Your task to perform on an android device: What's the weather going to be this weekend? Image 0: 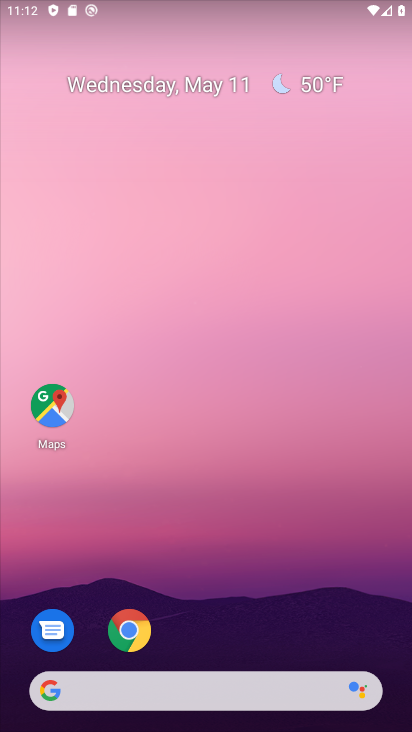
Step 0: click (125, 631)
Your task to perform on an android device: What's the weather going to be this weekend? Image 1: 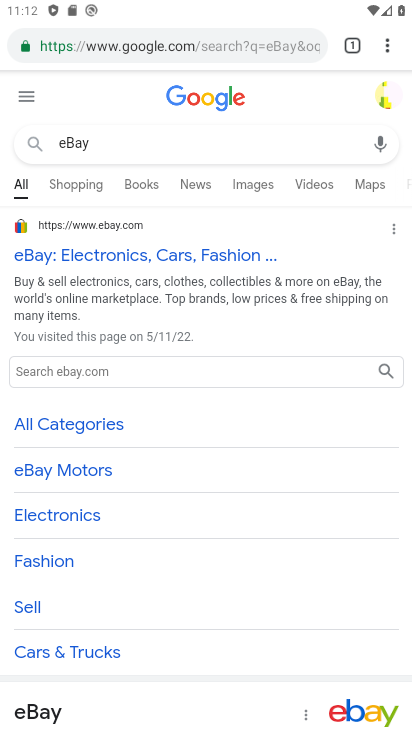
Step 1: click (163, 42)
Your task to perform on an android device: What's the weather going to be this weekend? Image 2: 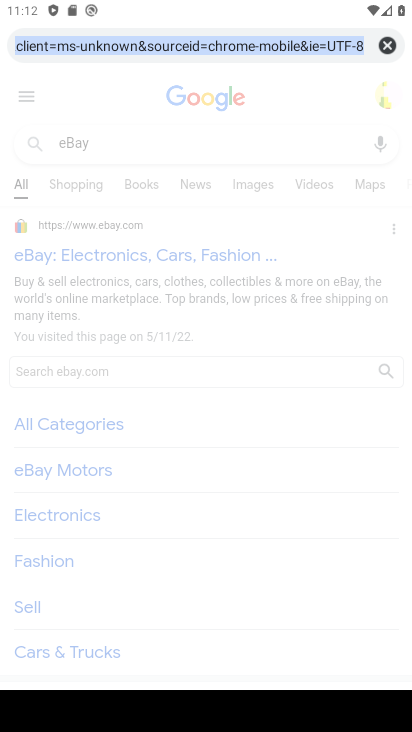
Step 2: type "What's the weather going to be this weekend?"
Your task to perform on an android device: What's the weather going to be this weekend? Image 3: 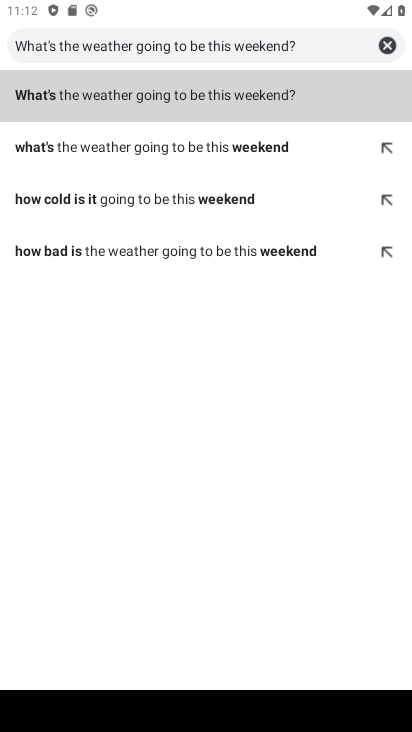
Step 3: click (275, 114)
Your task to perform on an android device: What's the weather going to be this weekend? Image 4: 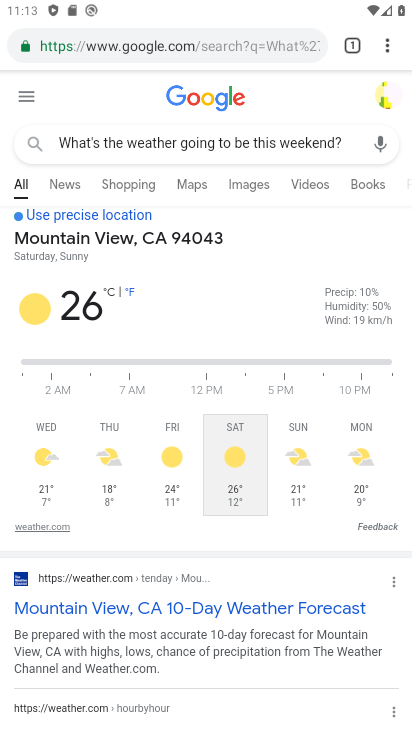
Step 4: task complete